Your task to perform on an android device: change the upload size in google photos Image 0: 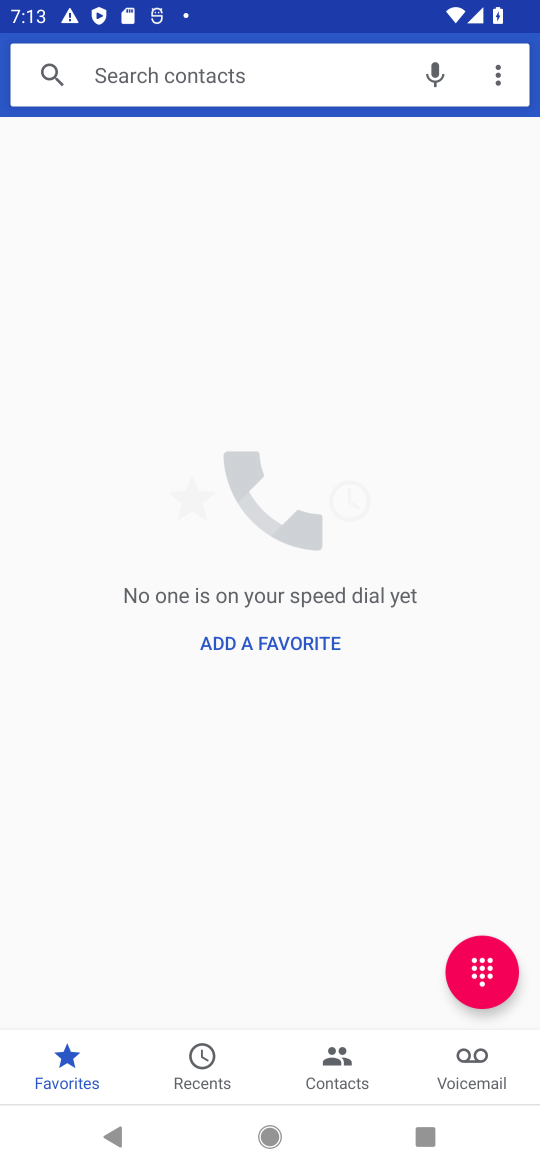
Step 0: press home button
Your task to perform on an android device: change the upload size in google photos Image 1: 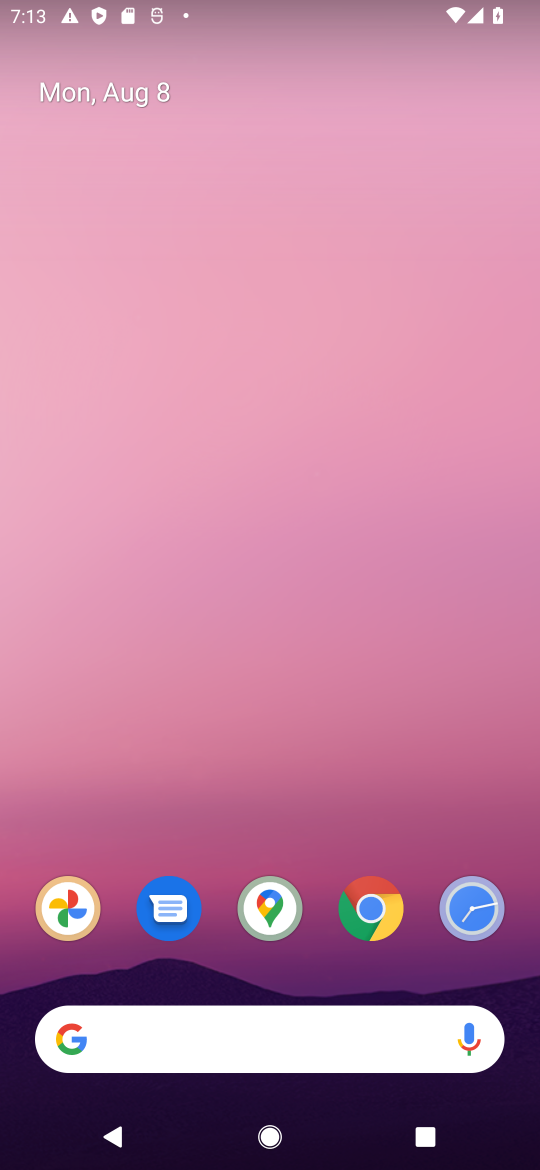
Step 1: click (55, 908)
Your task to perform on an android device: change the upload size in google photos Image 2: 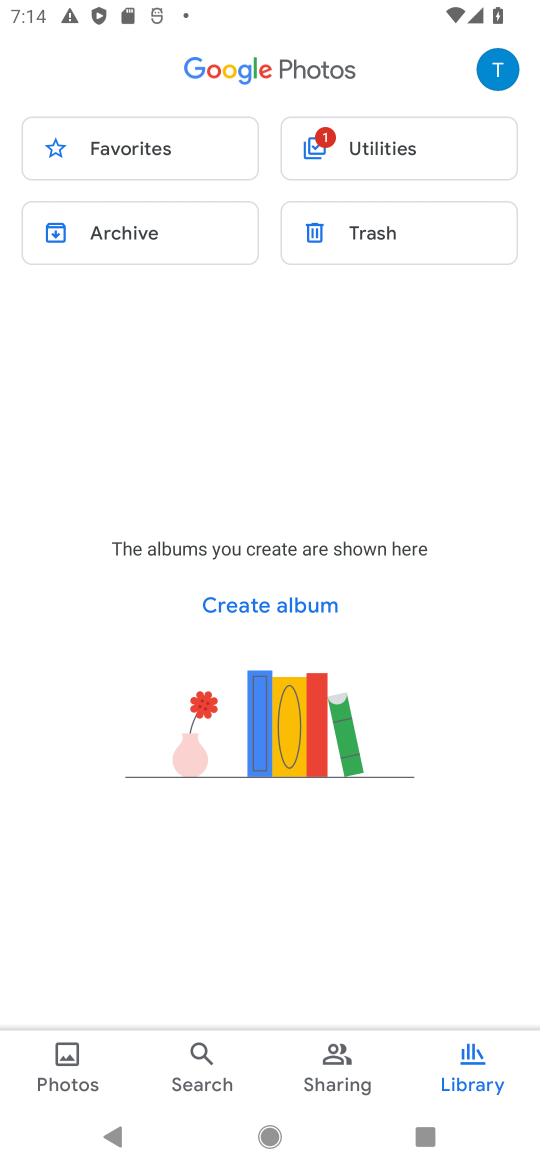
Step 2: click (494, 79)
Your task to perform on an android device: change the upload size in google photos Image 3: 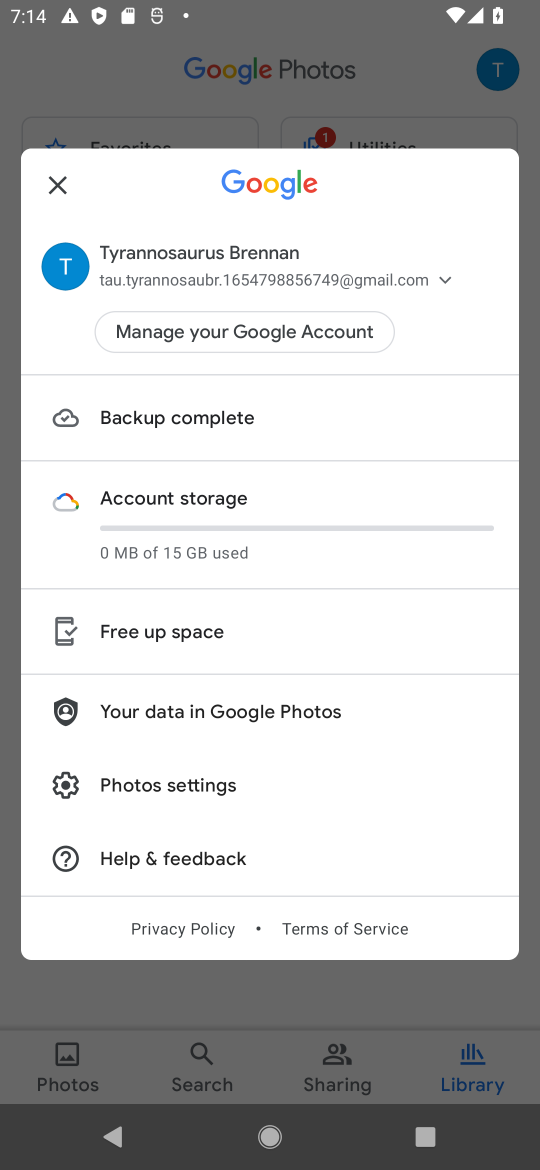
Step 3: click (189, 776)
Your task to perform on an android device: change the upload size in google photos Image 4: 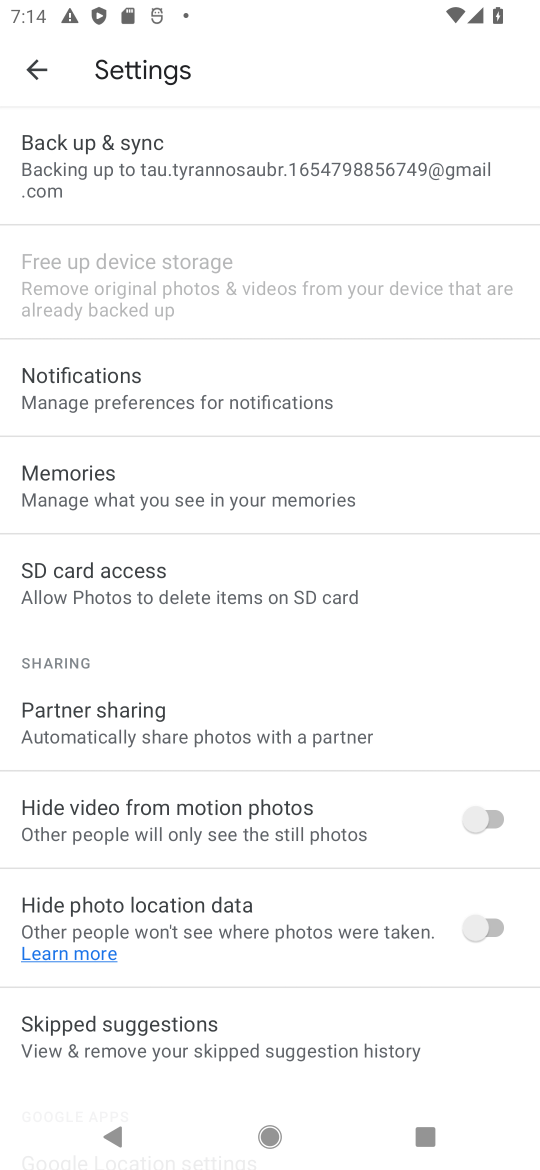
Step 4: click (245, 162)
Your task to perform on an android device: change the upload size in google photos Image 5: 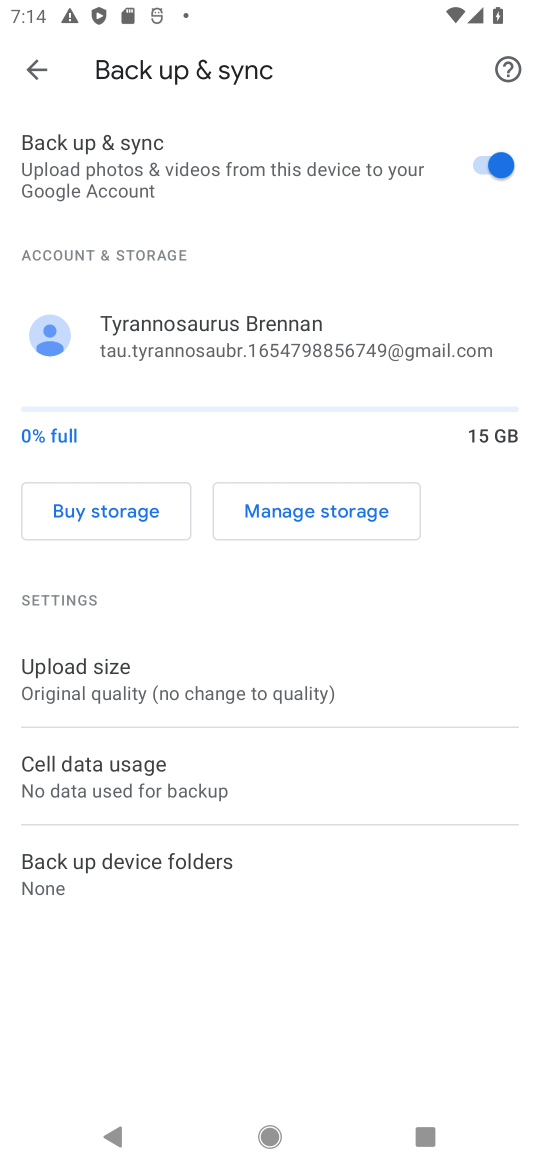
Step 5: click (103, 695)
Your task to perform on an android device: change the upload size in google photos Image 6: 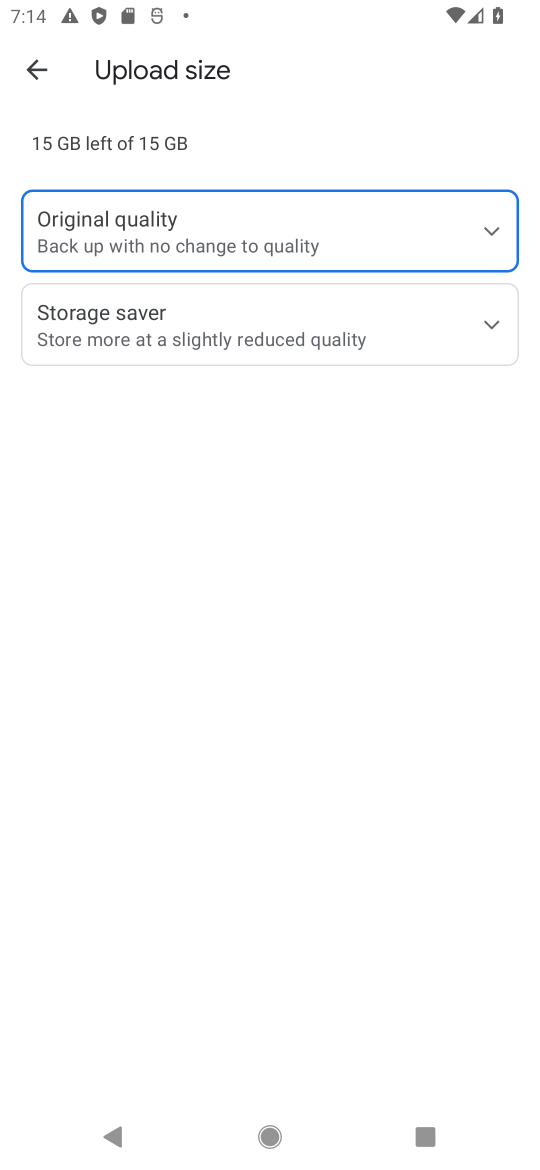
Step 6: click (278, 297)
Your task to perform on an android device: change the upload size in google photos Image 7: 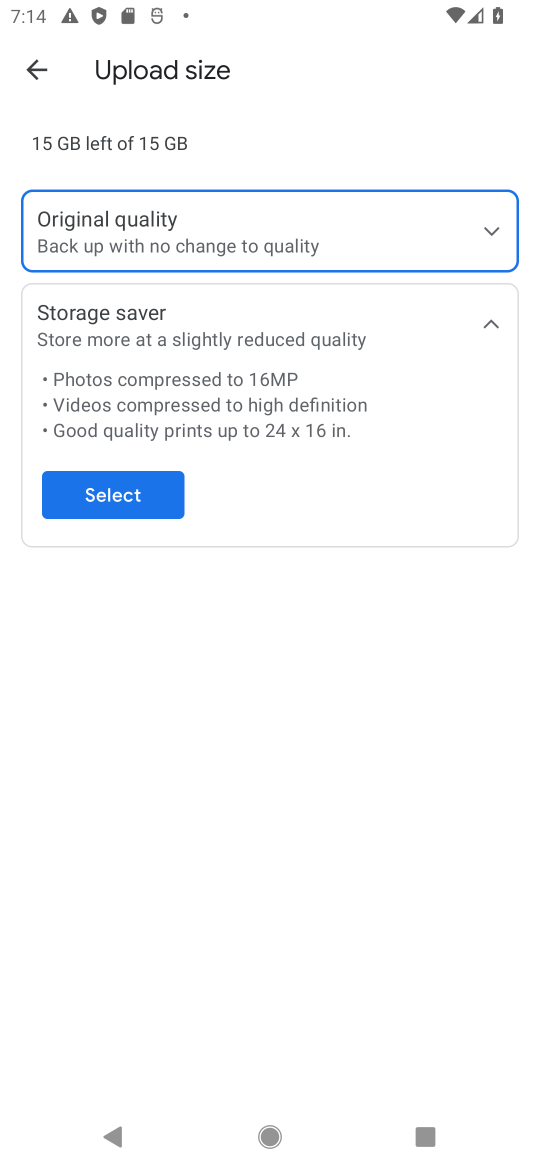
Step 7: click (320, 185)
Your task to perform on an android device: change the upload size in google photos Image 8: 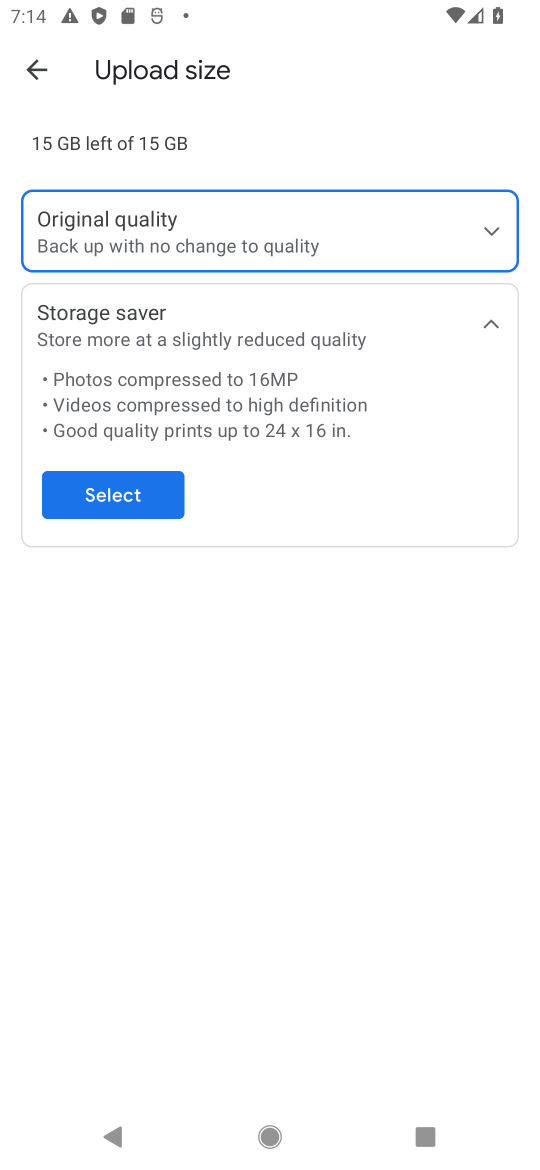
Step 8: click (321, 205)
Your task to perform on an android device: change the upload size in google photos Image 9: 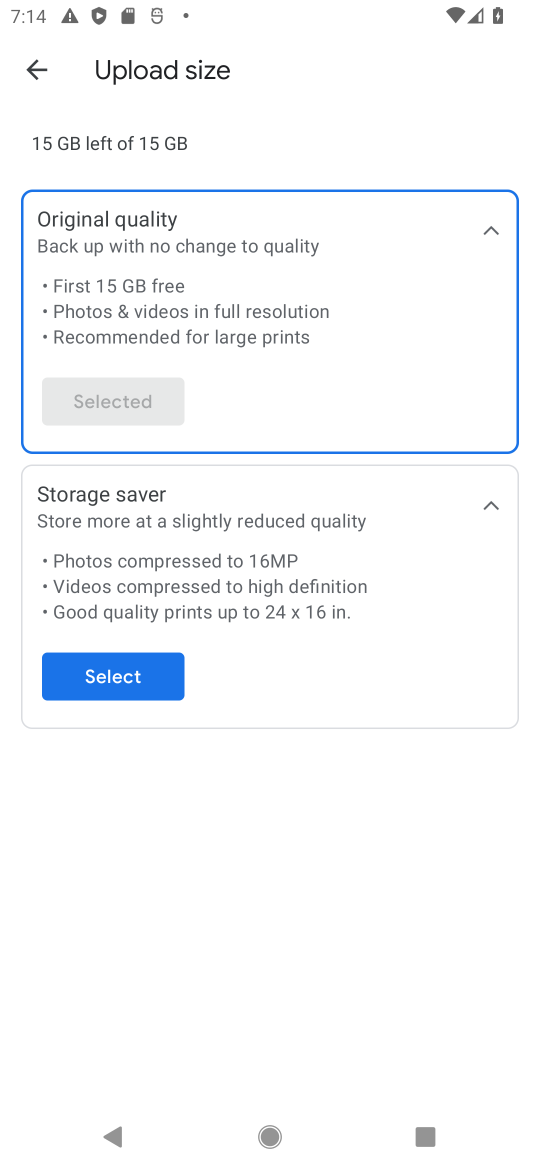
Step 9: click (321, 205)
Your task to perform on an android device: change the upload size in google photos Image 10: 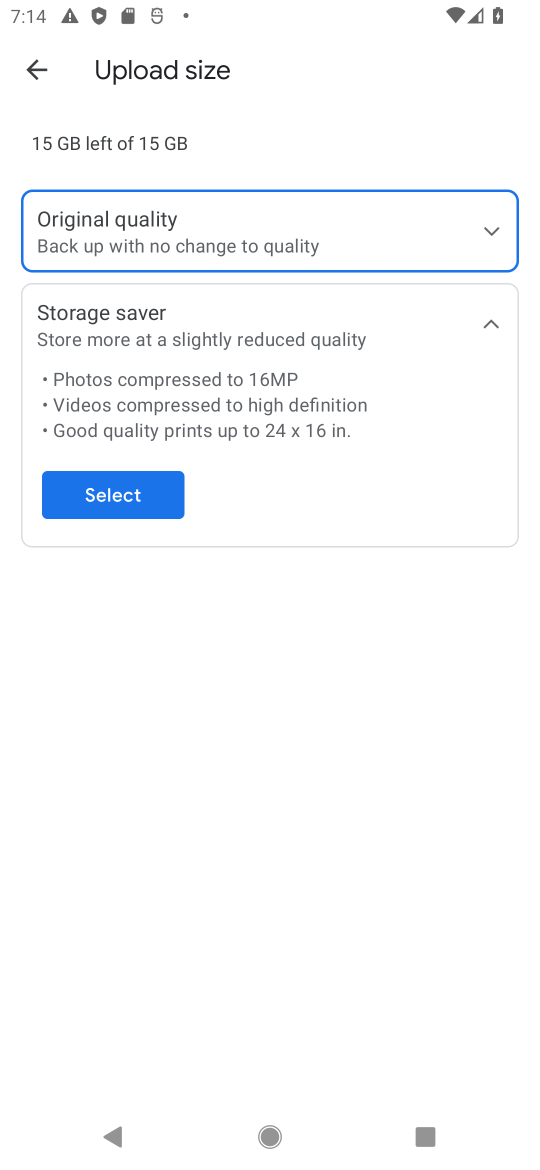
Step 10: click (341, 238)
Your task to perform on an android device: change the upload size in google photos Image 11: 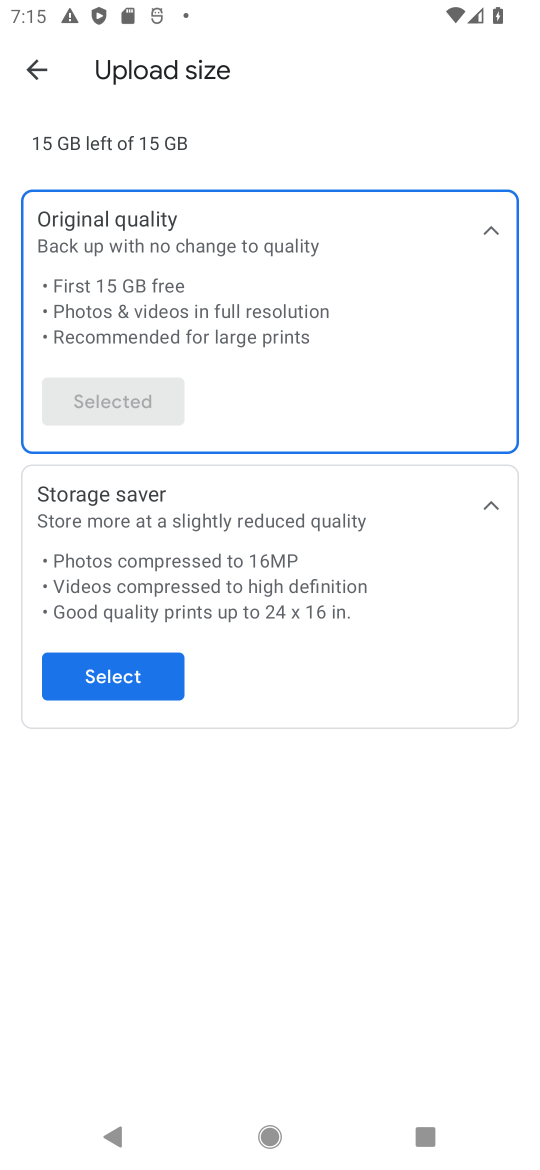
Step 11: click (91, 683)
Your task to perform on an android device: change the upload size in google photos Image 12: 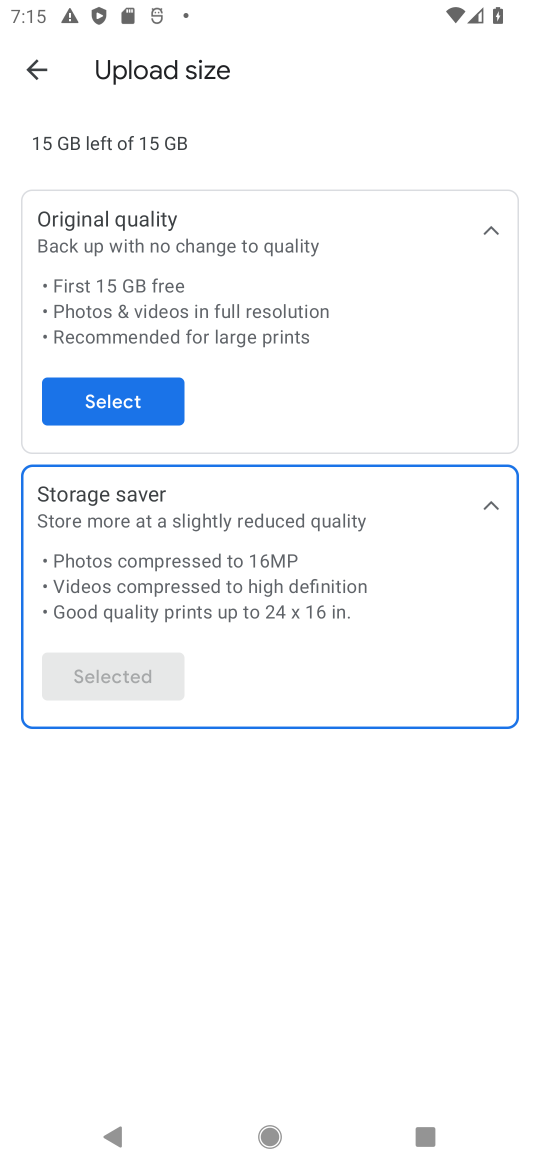
Step 12: task complete